Your task to perform on an android device: Clear the cart on newegg.com. Search for "sony triple a" on newegg.com, select the first entry, and add it to the cart. Image 0: 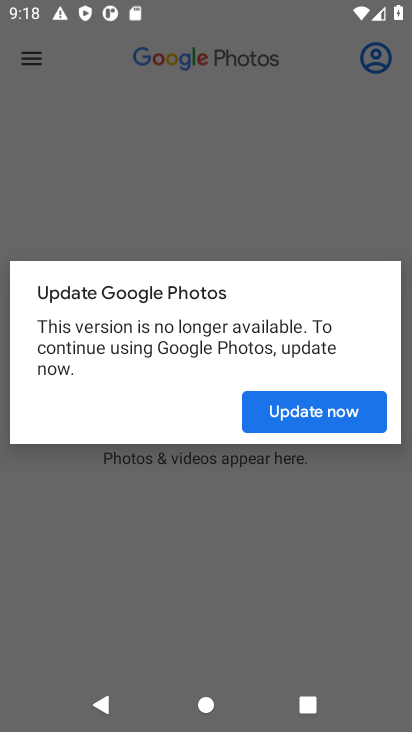
Step 0: press home button
Your task to perform on an android device: Clear the cart on newegg.com. Search for "sony triple a" on newegg.com, select the first entry, and add it to the cart. Image 1: 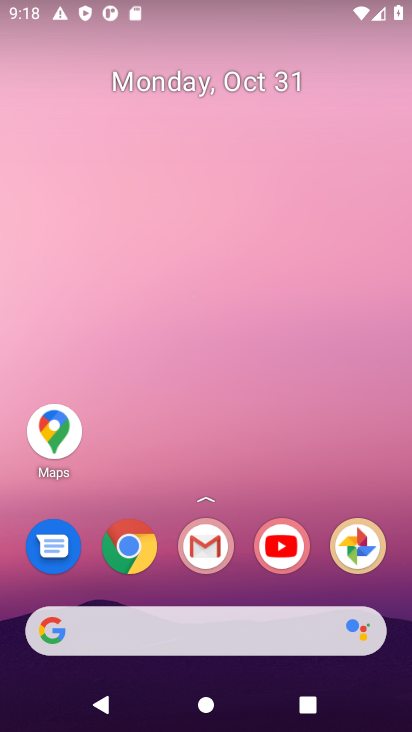
Step 1: click (140, 559)
Your task to perform on an android device: Clear the cart on newegg.com. Search for "sony triple a" on newegg.com, select the first entry, and add it to the cart. Image 2: 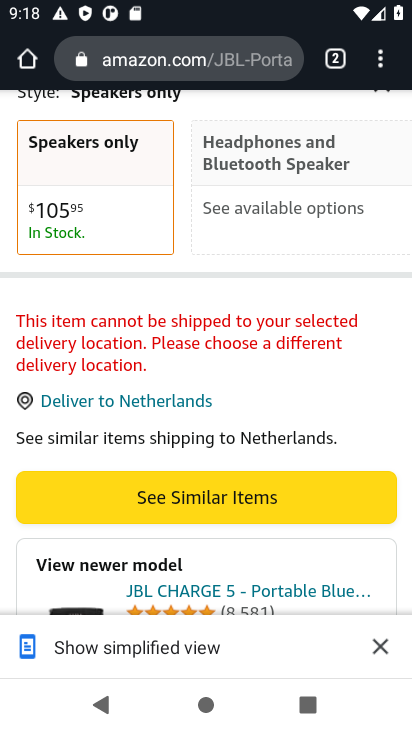
Step 2: click (152, 65)
Your task to perform on an android device: Clear the cart on newegg.com. Search for "sony triple a" on newegg.com, select the first entry, and add it to the cart. Image 3: 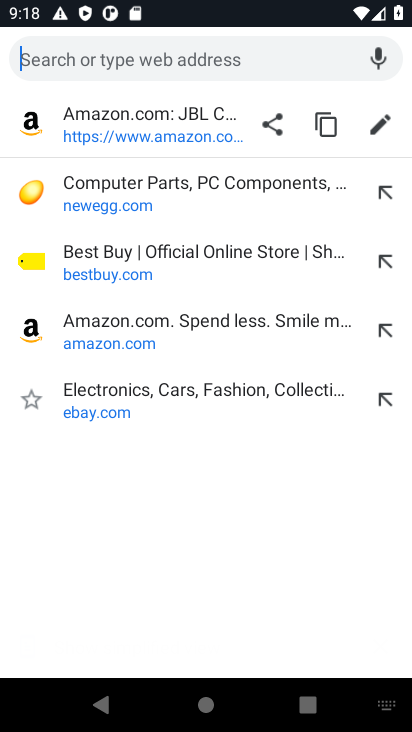
Step 3: type "newegg.com"
Your task to perform on an android device: Clear the cart on newegg.com. Search for "sony triple a" on newegg.com, select the first entry, and add it to the cart. Image 4: 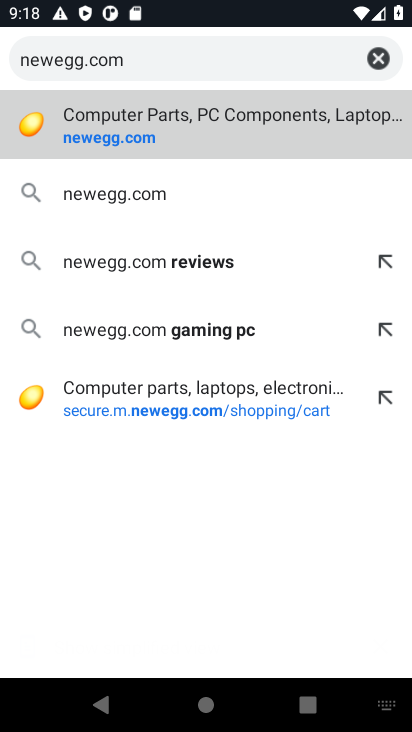
Step 4: press enter
Your task to perform on an android device: Clear the cart on newegg.com. Search for "sony triple a" on newegg.com, select the first entry, and add it to the cart. Image 5: 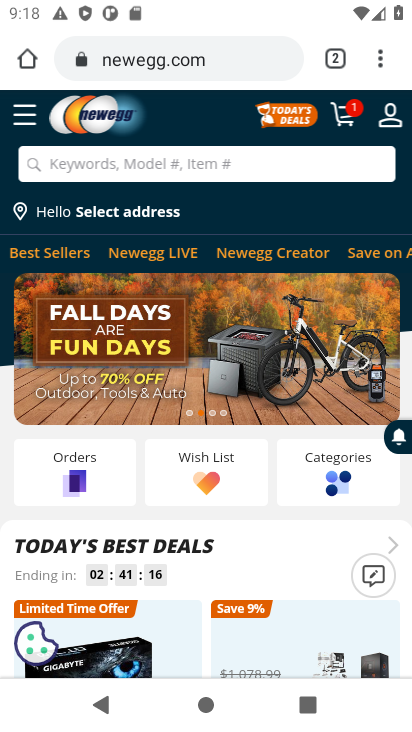
Step 5: click (220, 163)
Your task to perform on an android device: Clear the cart on newegg.com. Search for "sony triple a" on newegg.com, select the first entry, and add it to the cart. Image 6: 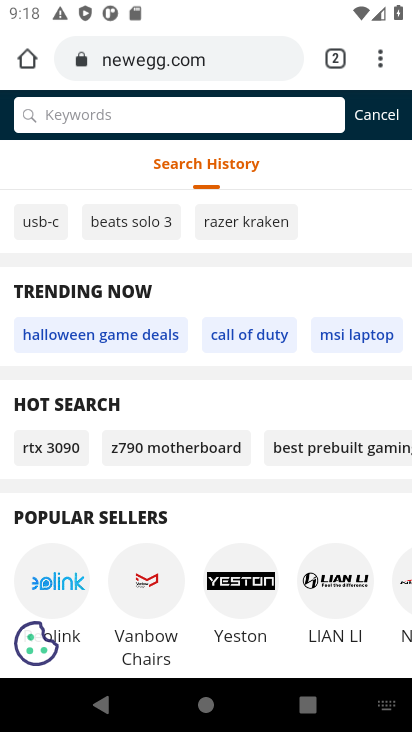
Step 6: type "sony triple a"
Your task to perform on an android device: Clear the cart on newegg.com. Search for "sony triple a" on newegg.com, select the first entry, and add it to the cart. Image 7: 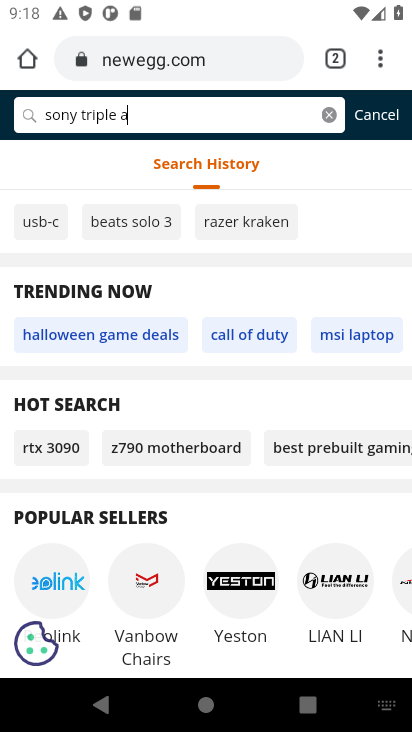
Step 7: press enter
Your task to perform on an android device: Clear the cart on newegg.com. Search for "sony triple a" on newegg.com, select the first entry, and add it to the cart. Image 8: 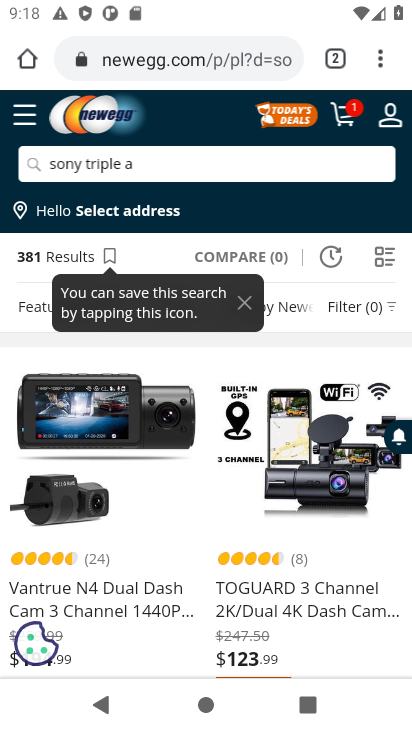
Step 8: drag from (192, 665) to (193, 538)
Your task to perform on an android device: Clear the cart on newegg.com. Search for "sony triple a" on newegg.com, select the first entry, and add it to the cart. Image 9: 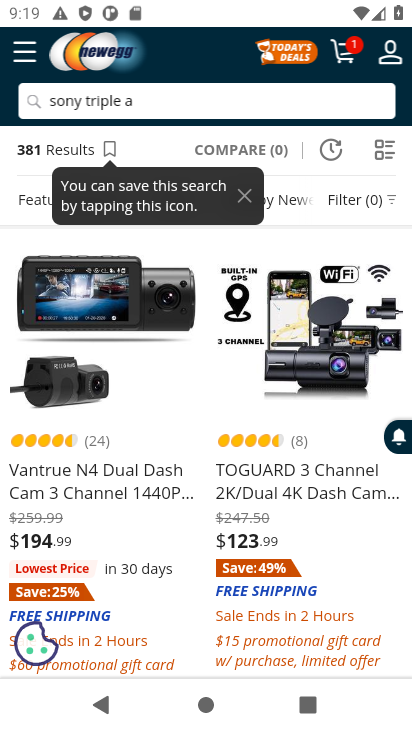
Step 9: click (117, 482)
Your task to perform on an android device: Clear the cart on newegg.com. Search for "sony triple a" on newegg.com, select the first entry, and add it to the cart. Image 10: 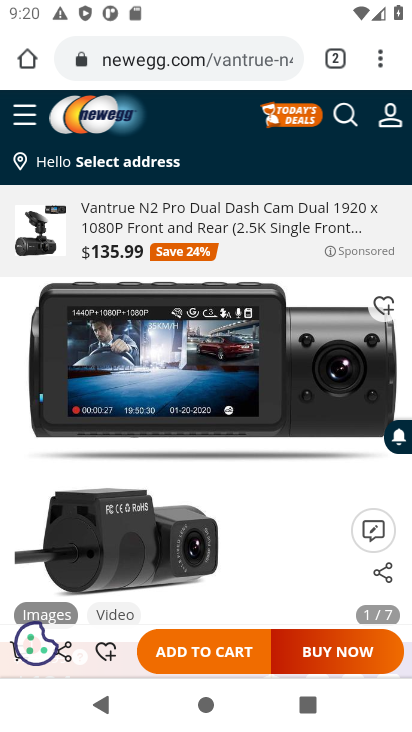
Step 10: drag from (62, 206) to (3, 210)
Your task to perform on an android device: Clear the cart on newegg.com. Search for "sony triple a" on newegg.com, select the first entry, and add it to the cart. Image 11: 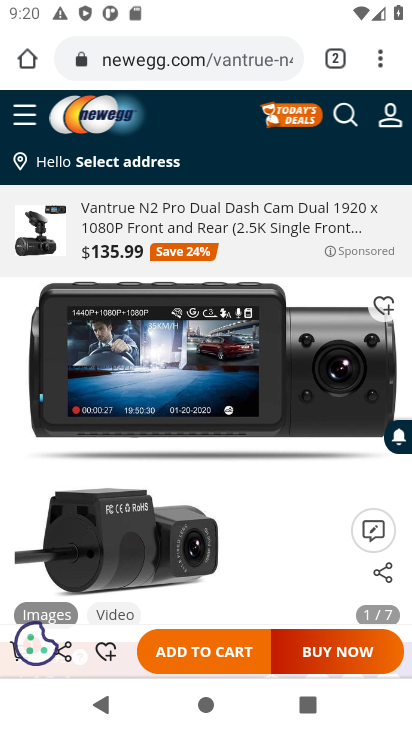
Step 11: click (19, 721)
Your task to perform on an android device: Clear the cart on newegg.com. Search for "sony triple a" on newegg.com, select the first entry, and add it to the cart. Image 12: 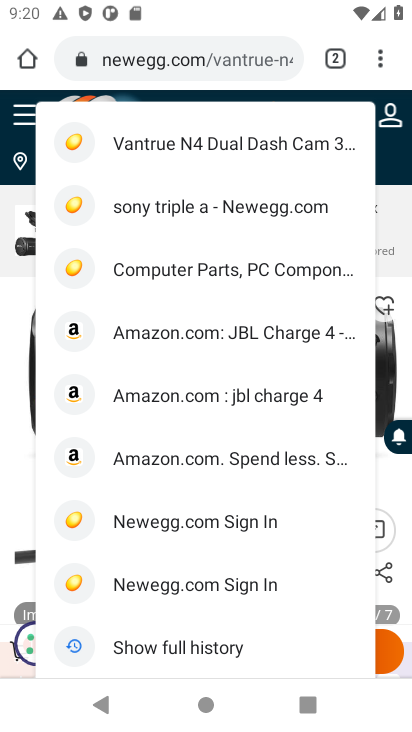
Step 12: click (384, 154)
Your task to perform on an android device: Clear the cart on newegg.com. Search for "sony triple a" on newegg.com, select the first entry, and add it to the cart. Image 13: 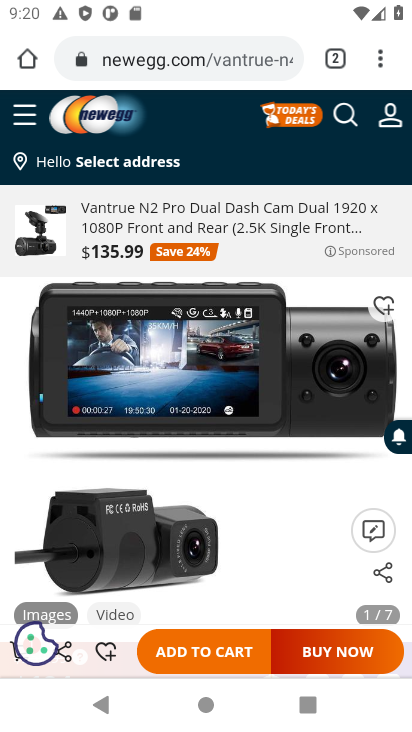
Step 13: click (214, 659)
Your task to perform on an android device: Clear the cart on newegg.com. Search for "sony triple a" on newegg.com, select the first entry, and add it to the cart. Image 14: 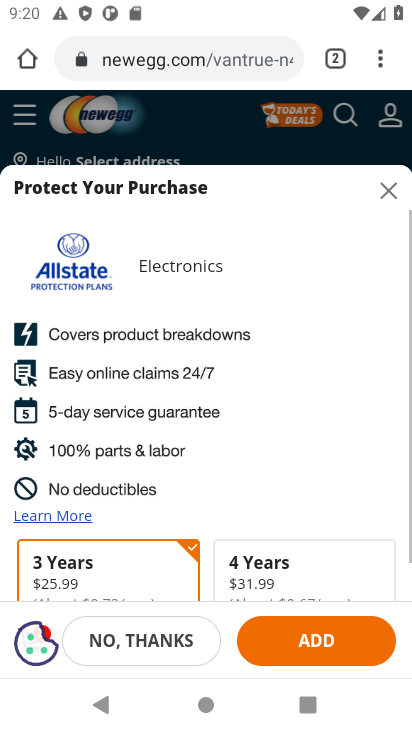
Step 14: click (329, 645)
Your task to perform on an android device: Clear the cart on newegg.com. Search for "sony triple a" on newegg.com, select the first entry, and add it to the cart. Image 15: 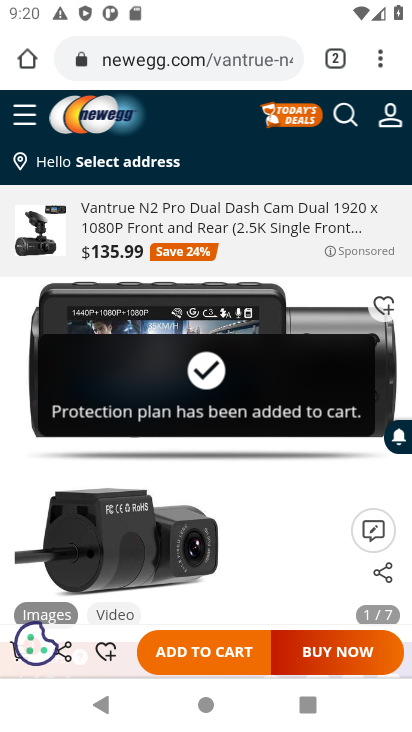
Step 15: task complete